Your task to perform on an android device: Go to Yahoo.com Image 0: 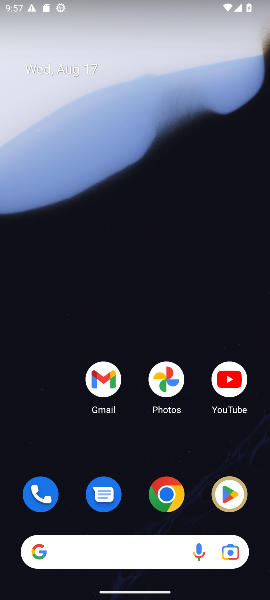
Step 0: click (162, 493)
Your task to perform on an android device: Go to Yahoo.com Image 1: 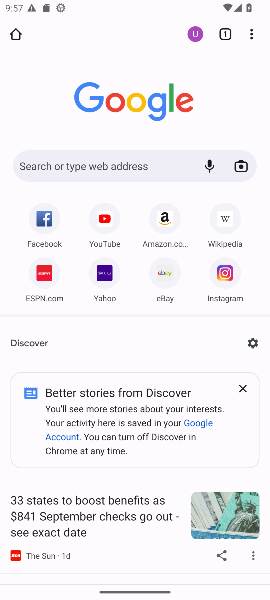
Step 1: click (56, 162)
Your task to perform on an android device: Go to Yahoo.com Image 2: 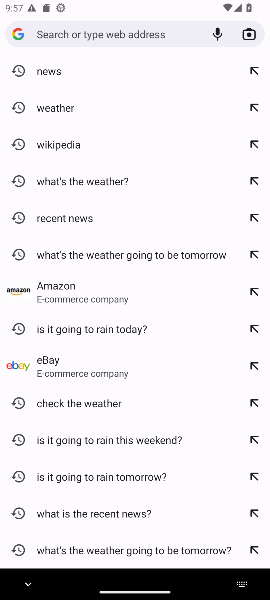
Step 2: type " Yahoo.com"
Your task to perform on an android device: Go to Yahoo.com Image 3: 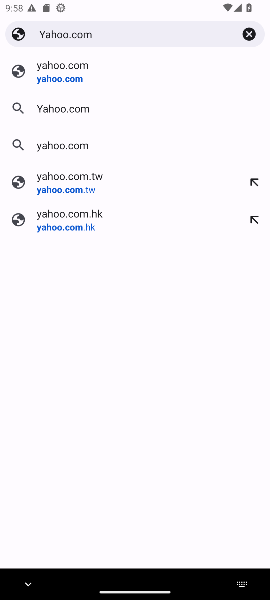
Step 3: click (46, 77)
Your task to perform on an android device: Go to Yahoo.com Image 4: 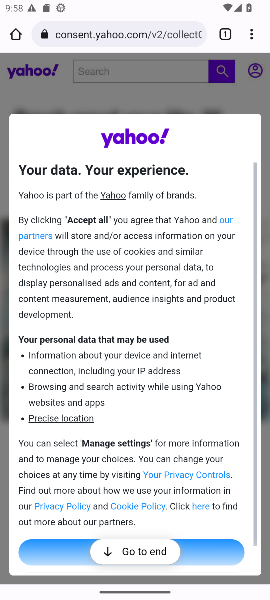
Step 4: task complete